Your task to perform on an android device: clear all cookies in the chrome app Image 0: 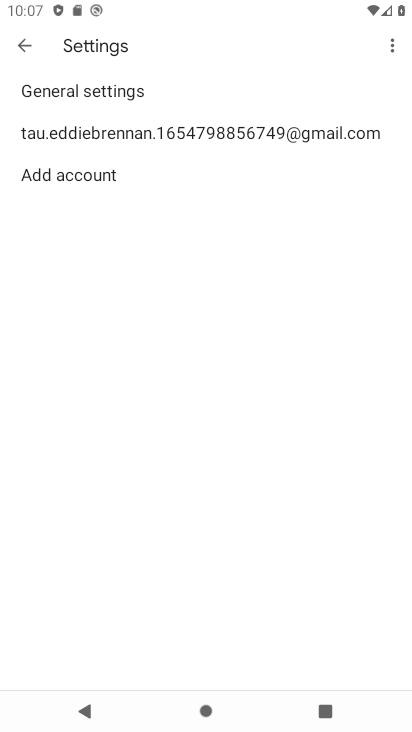
Step 0: press home button
Your task to perform on an android device: clear all cookies in the chrome app Image 1: 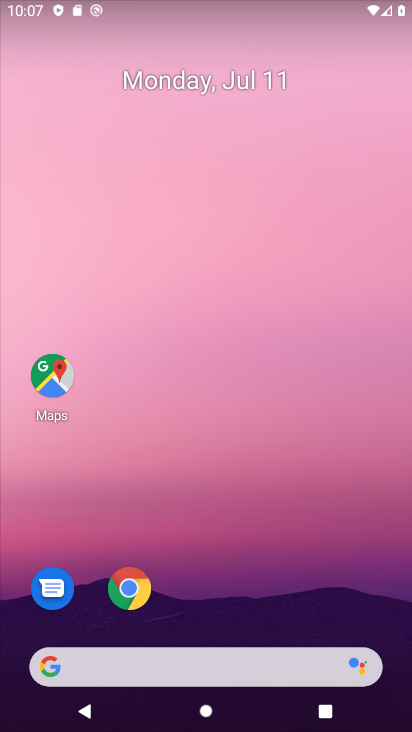
Step 1: click (132, 592)
Your task to perform on an android device: clear all cookies in the chrome app Image 2: 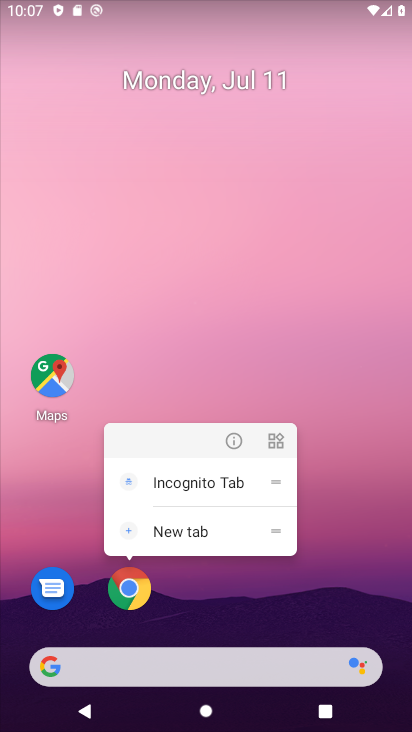
Step 2: click (127, 589)
Your task to perform on an android device: clear all cookies in the chrome app Image 3: 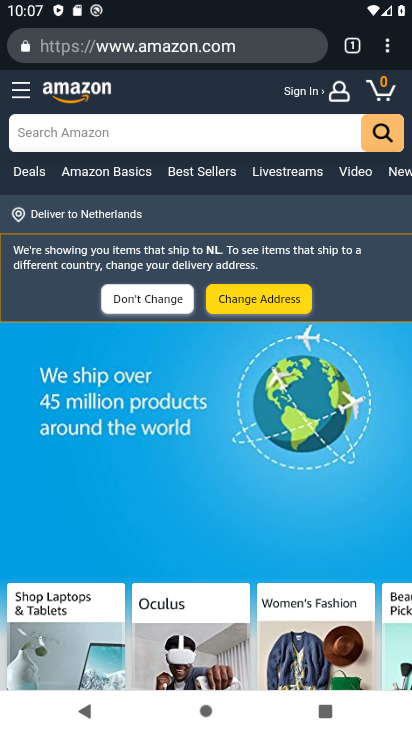
Step 3: drag from (386, 41) to (287, 539)
Your task to perform on an android device: clear all cookies in the chrome app Image 4: 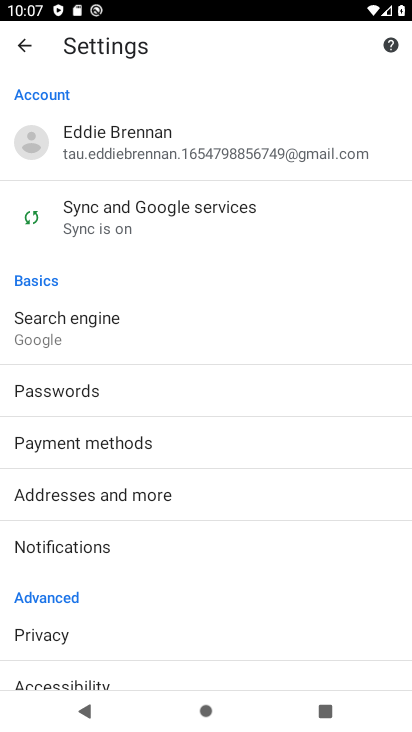
Step 4: click (59, 632)
Your task to perform on an android device: clear all cookies in the chrome app Image 5: 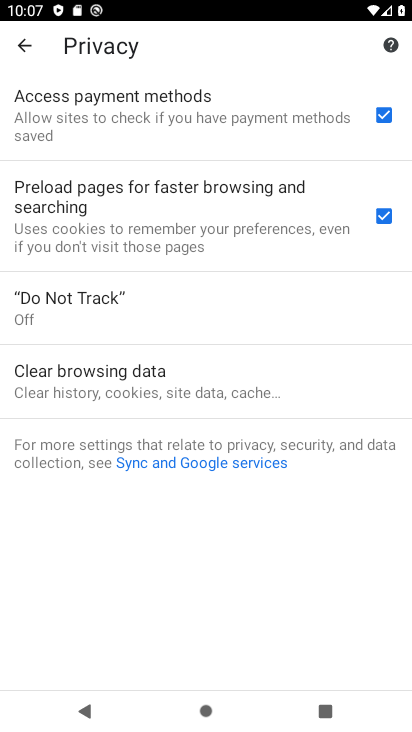
Step 5: click (152, 397)
Your task to perform on an android device: clear all cookies in the chrome app Image 6: 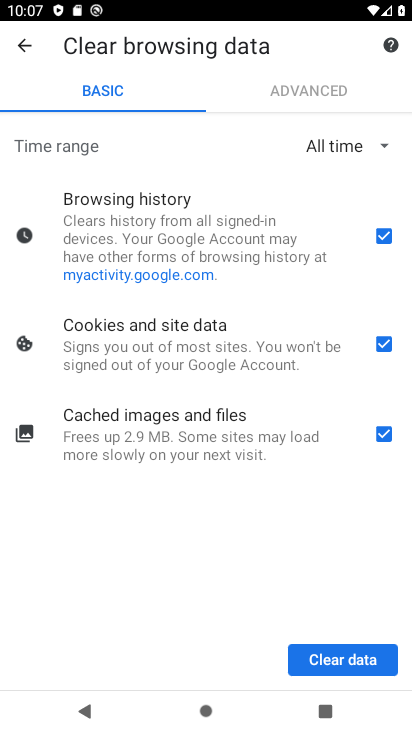
Step 6: click (395, 234)
Your task to perform on an android device: clear all cookies in the chrome app Image 7: 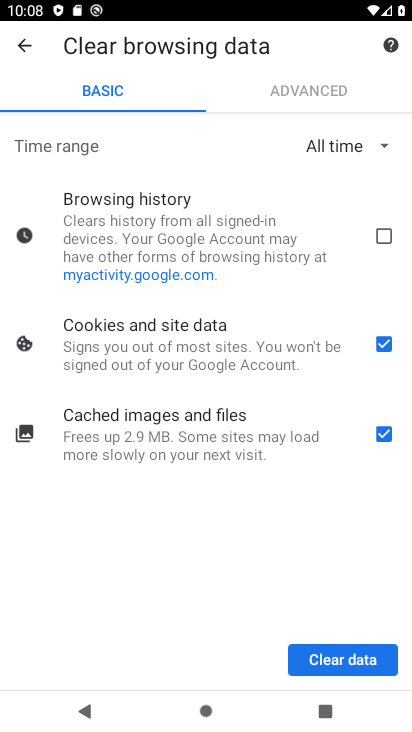
Step 7: click (384, 429)
Your task to perform on an android device: clear all cookies in the chrome app Image 8: 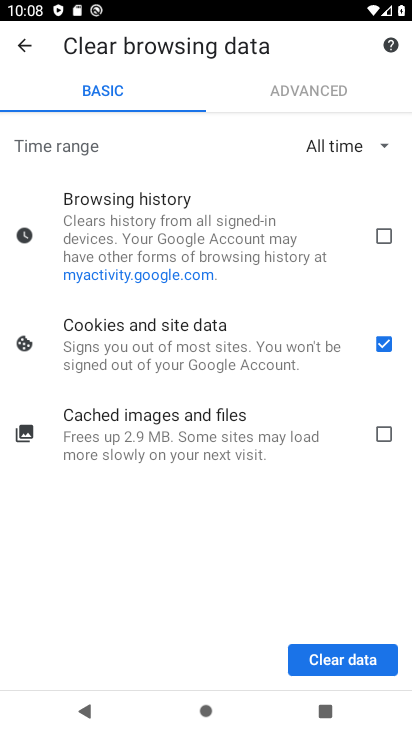
Step 8: click (334, 664)
Your task to perform on an android device: clear all cookies in the chrome app Image 9: 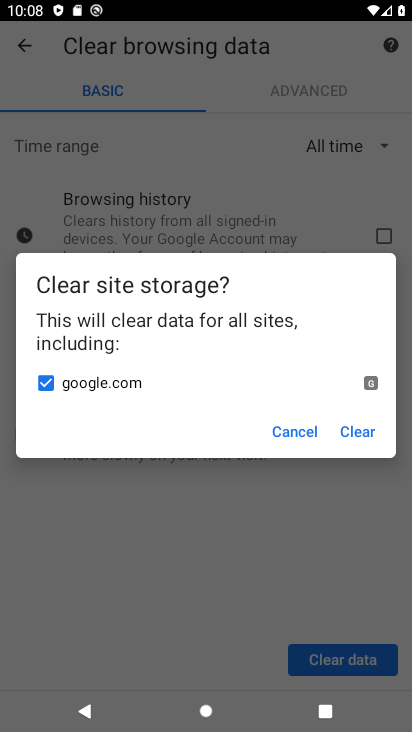
Step 9: click (361, 434)
Your task to perform on an android device: clear all cookies in the chrome app Image 10: 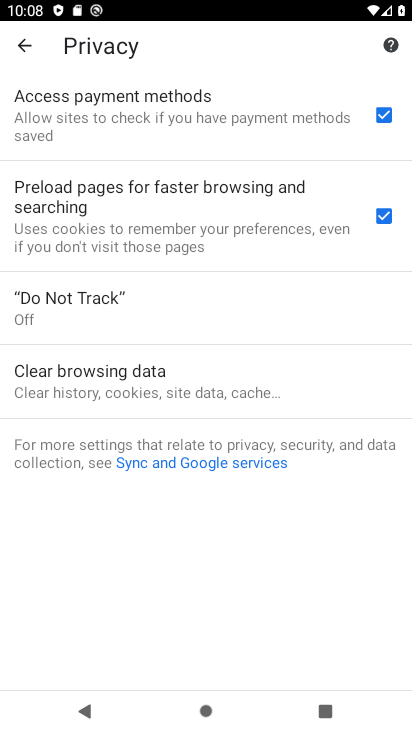
Step 10: task complete